Your task to perform on an android device: Do I have any events tomorrow? Image 0: 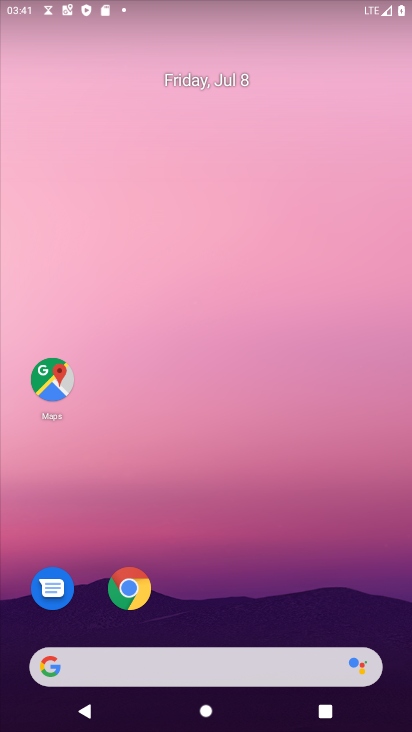
Step 0: drag from (169, 560) to (163, 11)
Your task to perform on an android device: Do I have any events tomorrow? Image 1: 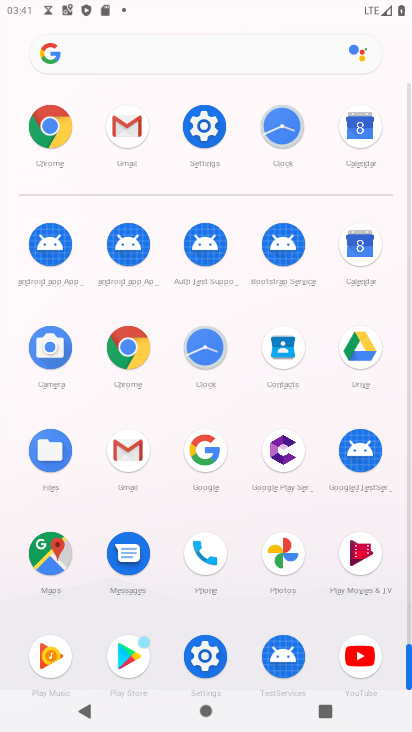
Step 1: click (236, 242)
Your task to perform on an android device: Do I have any events tomorrow? Image 2: 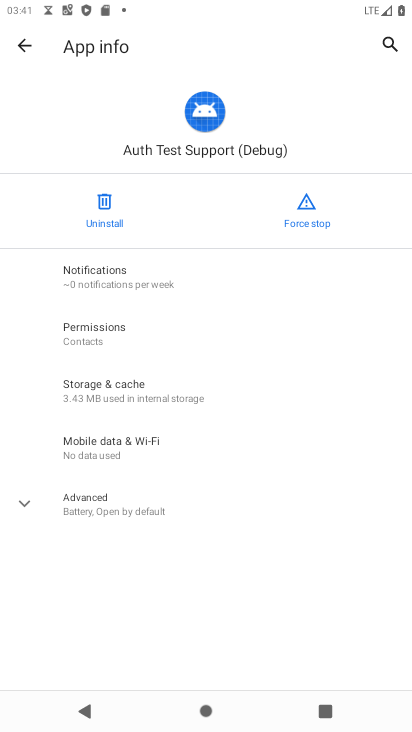
Step 2: click (374, 253)
Your task to perform on an android device: Do I have any events tomorrow? Image 3: 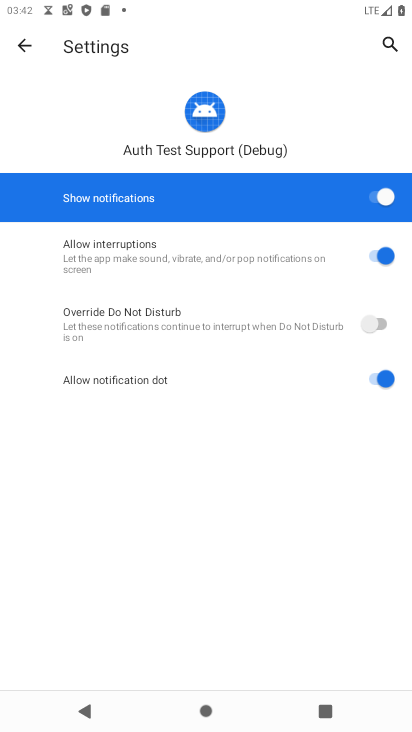
Step 3: click (17, 48)
Your task to perform on an android device: Do I have any events tomorrow? Image 4: 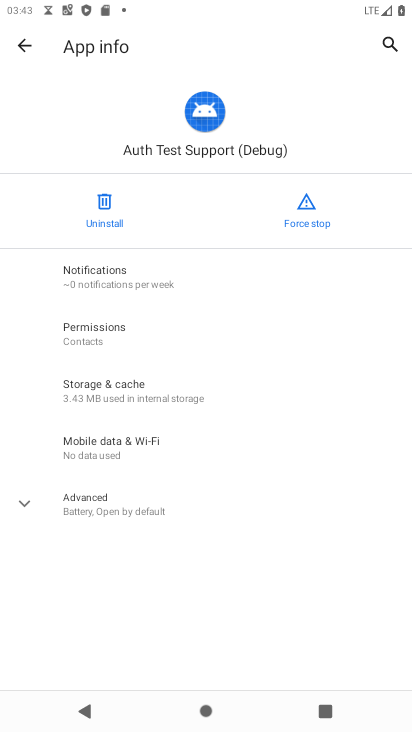
Step 4: click (17, 48)
Your task to perform on an android device: Do I have any events tomorrow? Image 5: 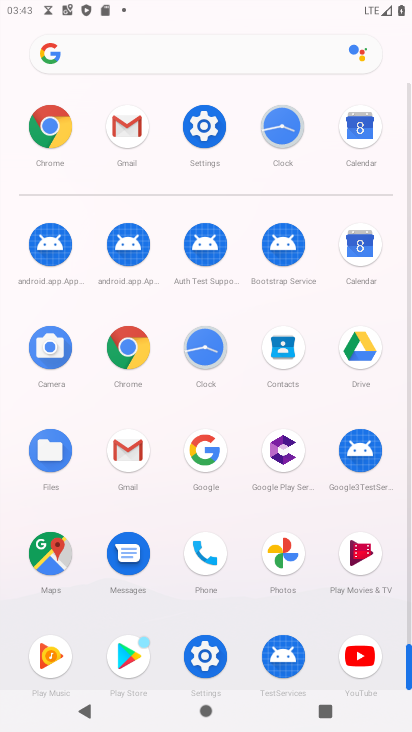
Step 5: click (24, 48)
Your task to perform on an android device: Do I have any events tomorrow? Image 6: 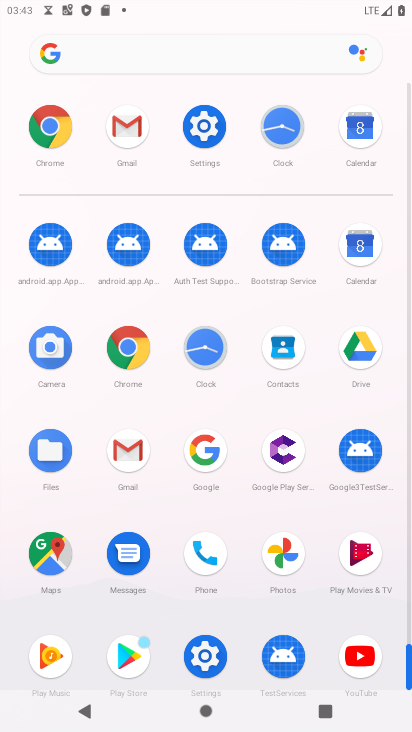
Step 6: click (360, 253)
Your task to perform on an android device: Do I have any events tomorrow? Image 7: 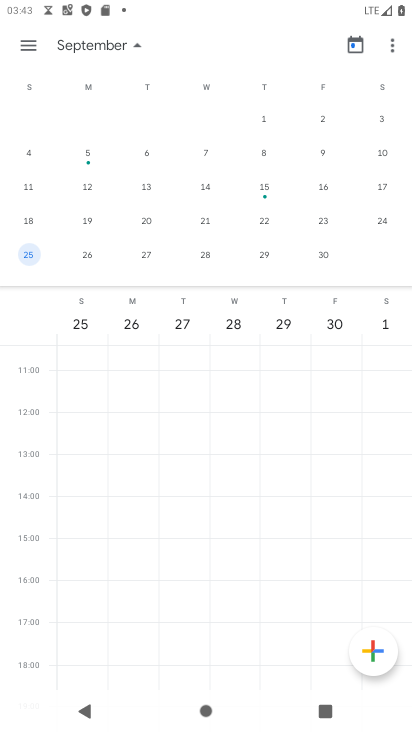
Step 7: click (122, 32)
Your task to perform on an android device: Do I have any events tomorrow? Image 8: 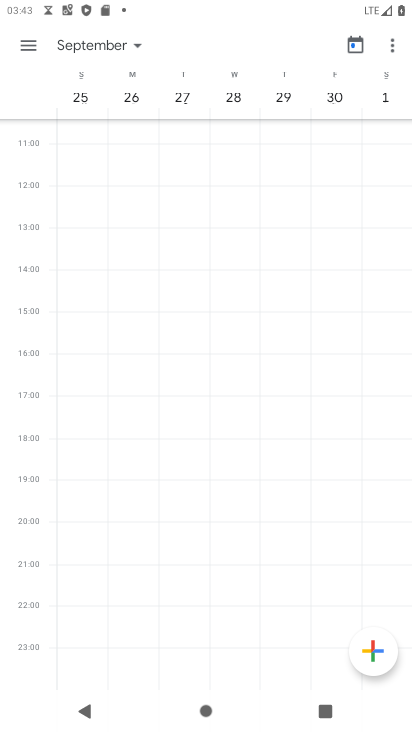
Step 8: click (106, 43)
Your task to perform on an android device: Do I have any events tomorrow? Image 9: 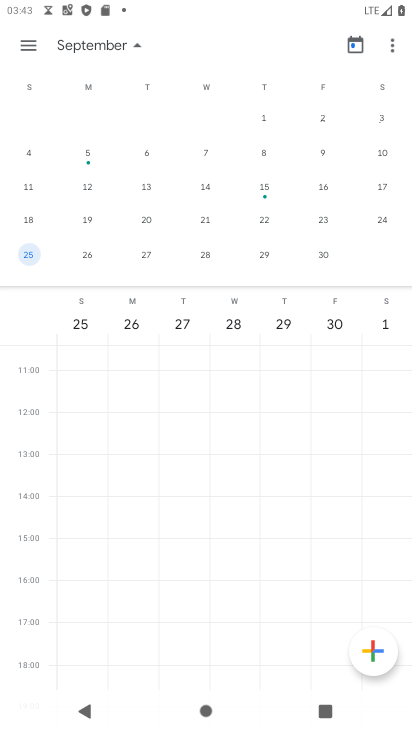
Step 9: drag from (282, 117) to (323, 148)
Your task to perform on an android device: Do I have any events tomorrow? Image 10: 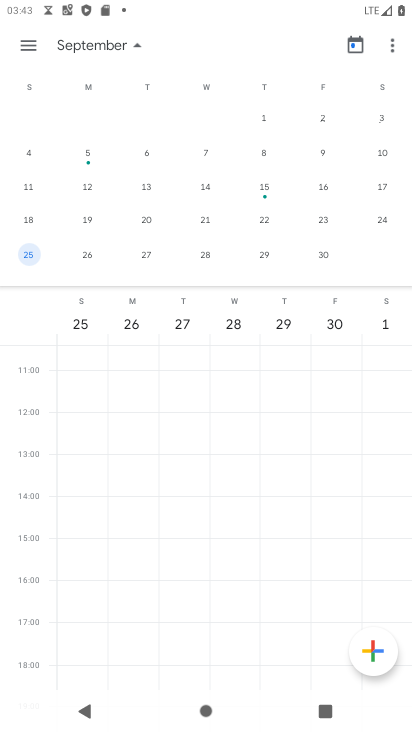
Step 10: click (199, 176)
Your task to perform on an android device: Do I have any events tomorrow? Image 11: 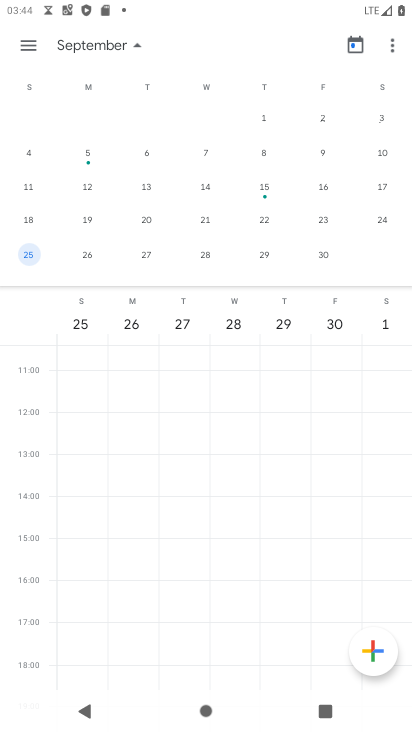
Step 11: drag from (370, 213) to (320, 133)
Your task to perform on an android device: Do I have any events tomorrow? Image 12: 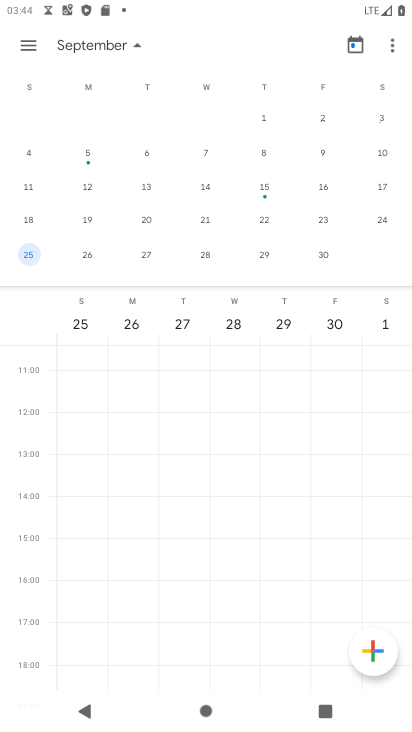
Step 12: drag from (41, 191) to (390, 139)
Your task to perform on an android device: Do I have any events tomorrow? Image 13: 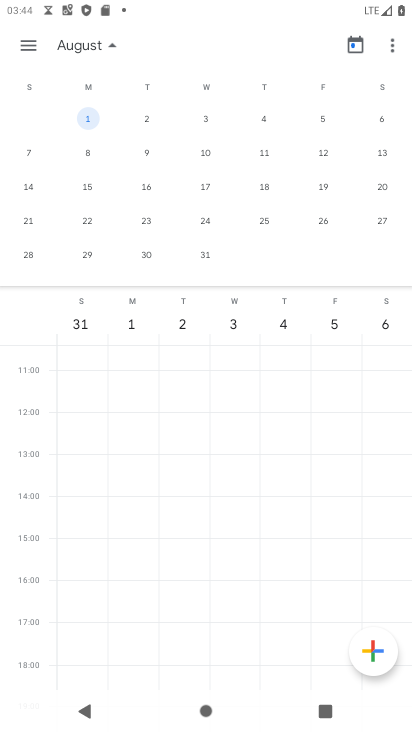
Step 13: drag from (121, 164) to (362, 142)
Your task to perform on an android device: Do I have any events tomorrow? Image 14: 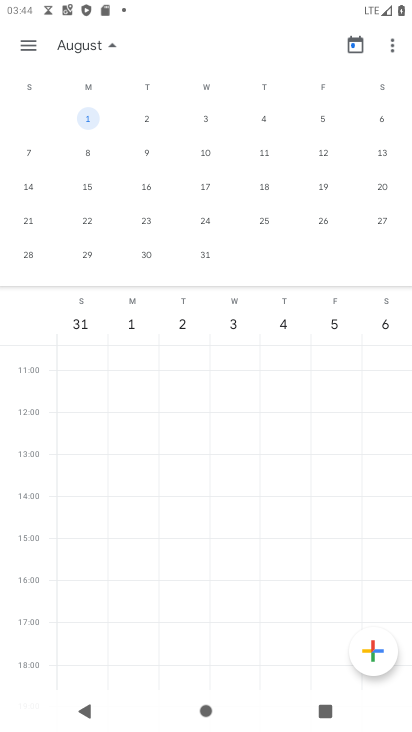
Step 14: drag from (127, 178) to (274, 187)
Your task to perform on an android device: Do I have any events tomorrow? Image 15: 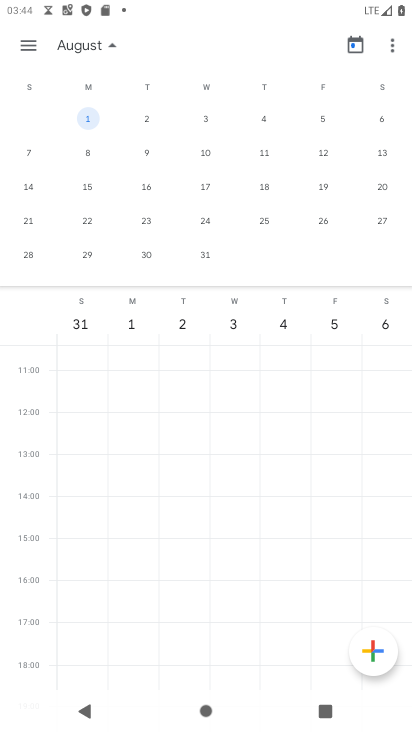
Step 15: drag from (90, 188) to (304, 152)
Your task to perform on an android device: Do I have any events tomorrow? Image 16: 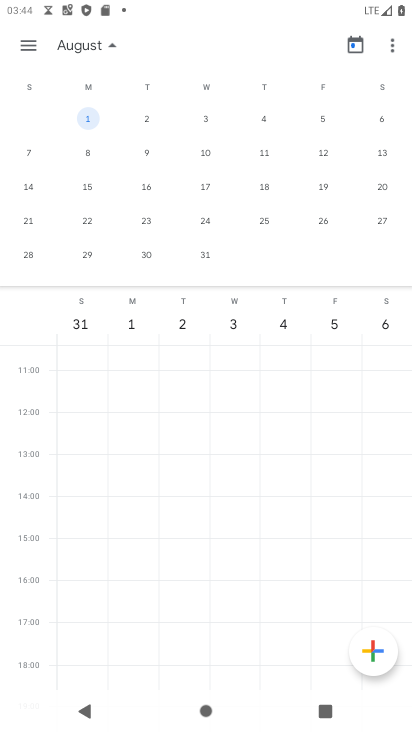
Step 16: drag from (30, 200) to (368, 148)
Your task to perform on an android device: Do I have any events tomorrow? Image 17: 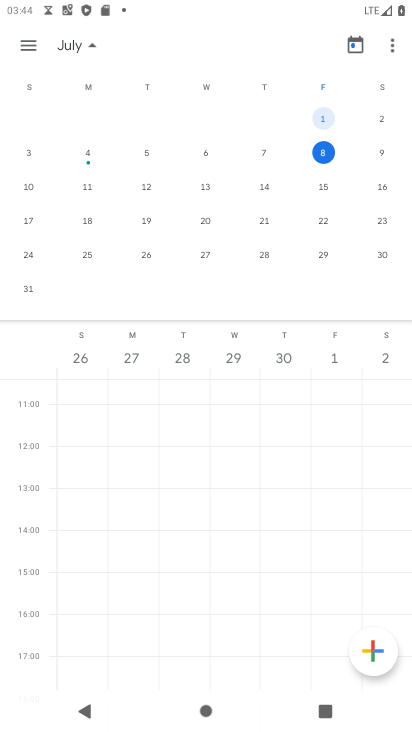
Step 17: click (379, 152)
Your task to perform on an android device: Do I have any events tomorrow? Image 18: 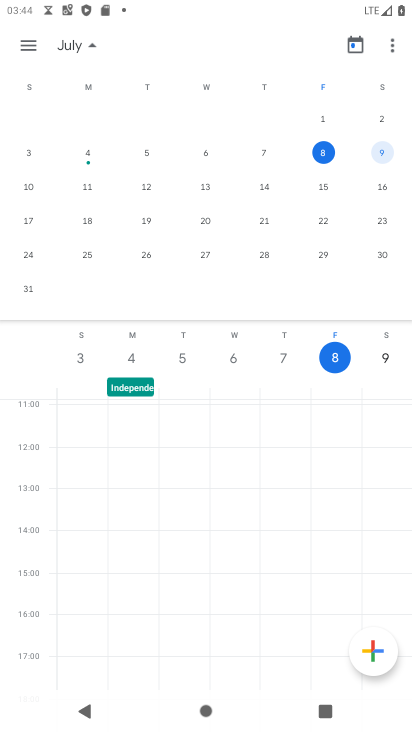
Step 18: task complete